Your task to perform on an android device: turn off priority inbox in the gmail app Image 0: 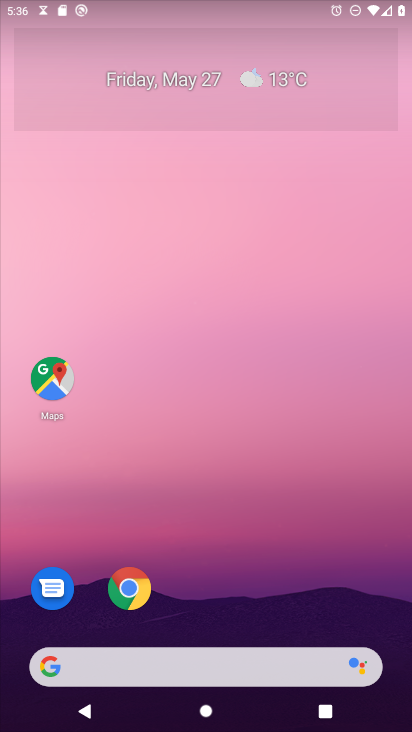
Step 0: drag from (247, 597) to (273, 68)
Your task to perform on an android device: turn off priority inbox in the gmail app Image 1: 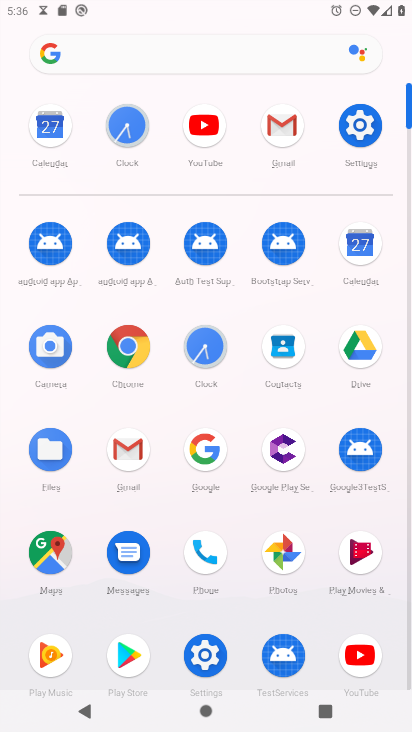
Step 1: click (271, 110)
Your task to perform on an android device: turn off priority inbox in the gmail app Image 2: 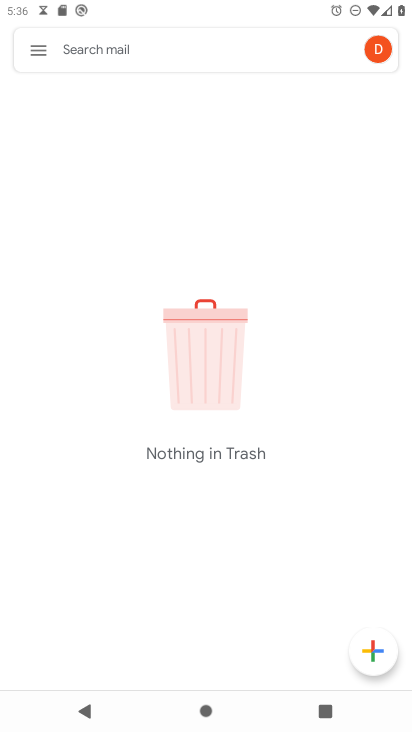
Step 2: click (37, 39)
Your task to perform on an android device: turn off priority inbox in the gmail app Image 3: 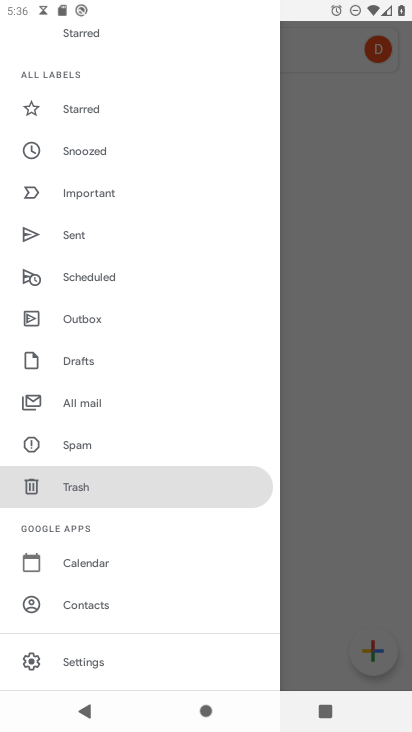
Step 3: click (87, 665)
Your task to perform on an android device: turn off priority inbox in the gmail app Image 4: 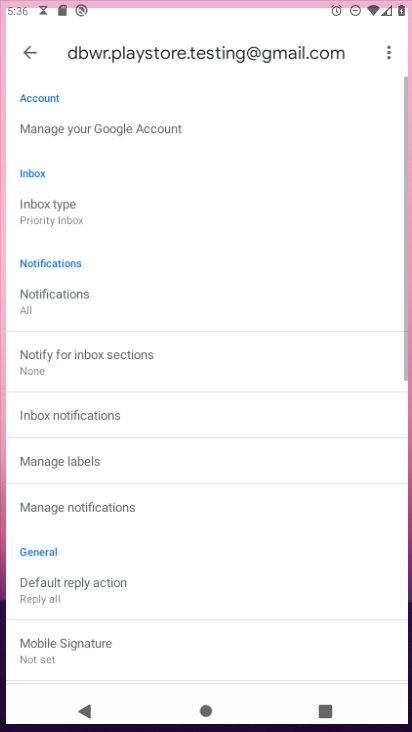
Step 4: drag from (119, 589) to (147, 703)
Your task to perform on an android device: turn off priority inbox in the gmail app Image 5: 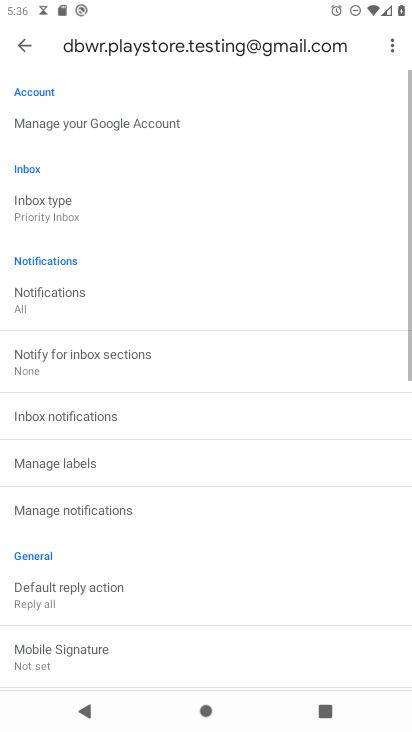
Step 5: click (47, 208)
Your task to perform on an android device: turn off priority inbox in the gmail app Image 6: 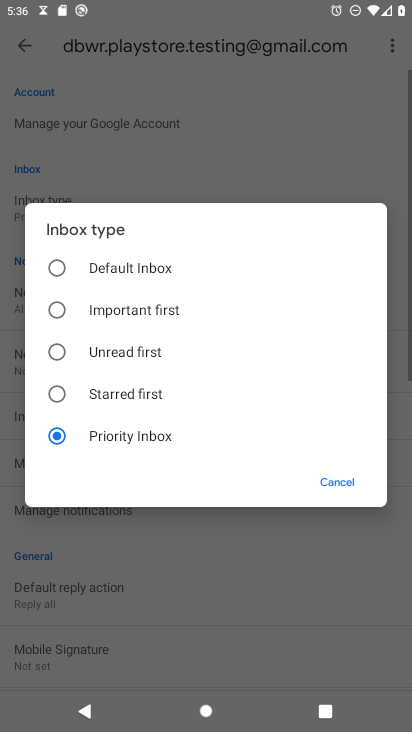
Step 6: click (67, 258)
Your task to perform on an android device: turn off priority inbox in the gmail app Image 7: 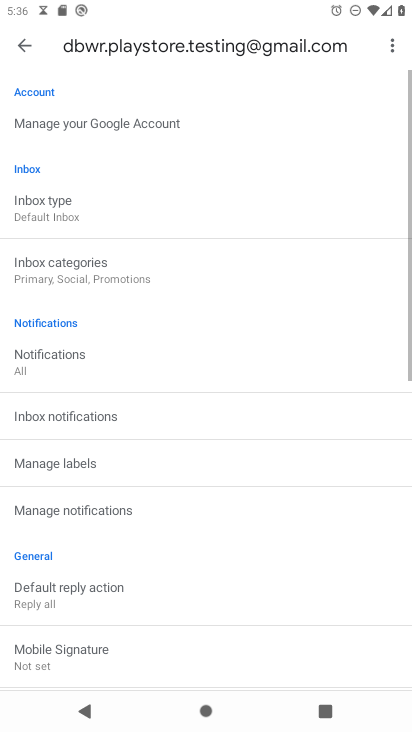
Step 7: task complete